Your task to perform on an android device: toggle wifi Image 0: 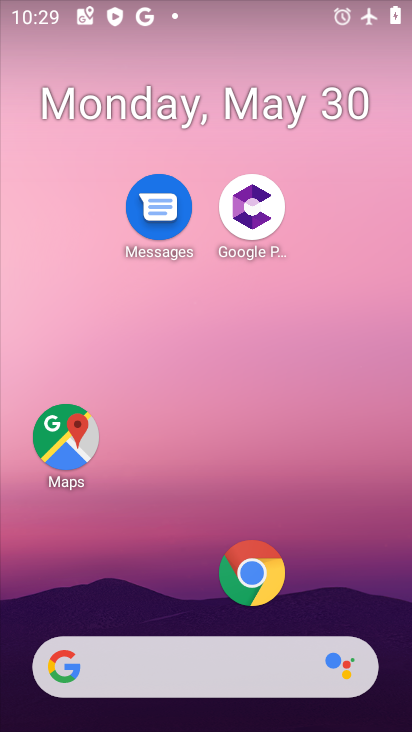
Step 0: drag from (247, 641) to (283, 159)
Your task to perform on an android device: toggle wifi Image 1: 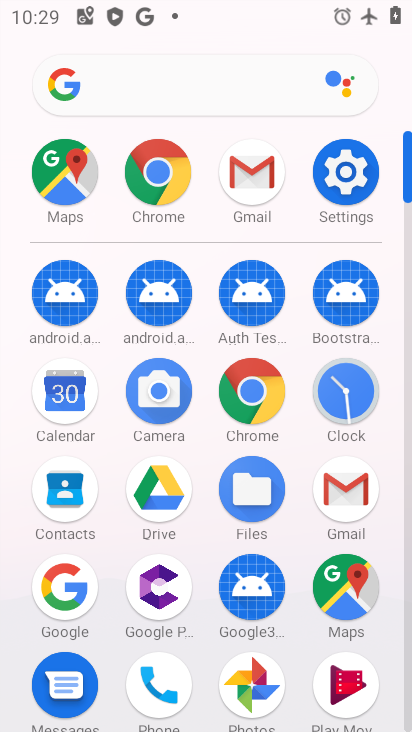
Step 1: click (346, 186)
Your task to perform on an android device: toggle wifi Image 2: 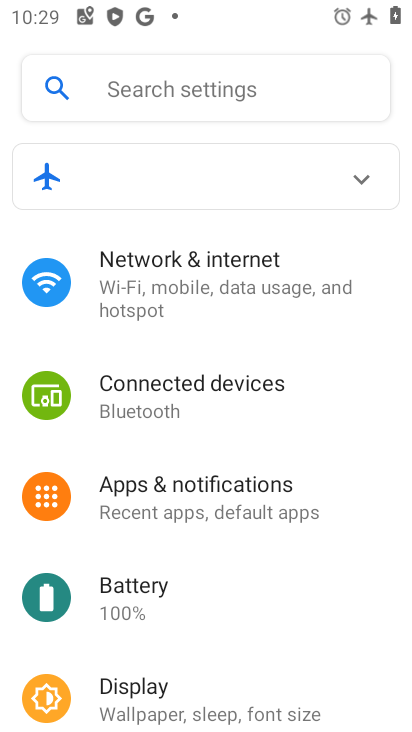
Step 2: click (261, 288)
Your task to perform on an android device: toggle wifi Image 3: 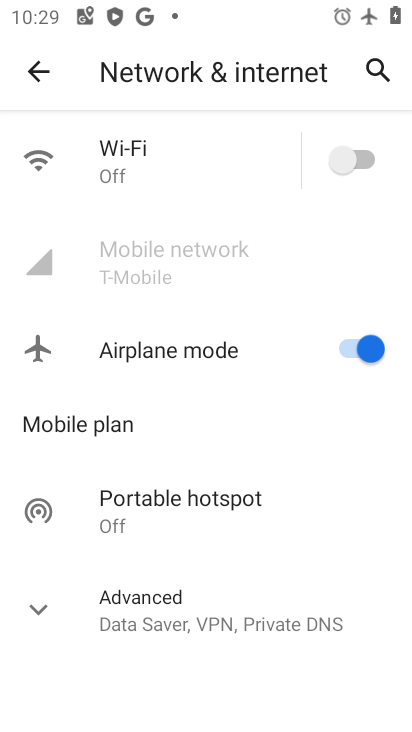
Step 3: click (367, 178)
Your task to perform on an android device: toggle wifi Image 4: 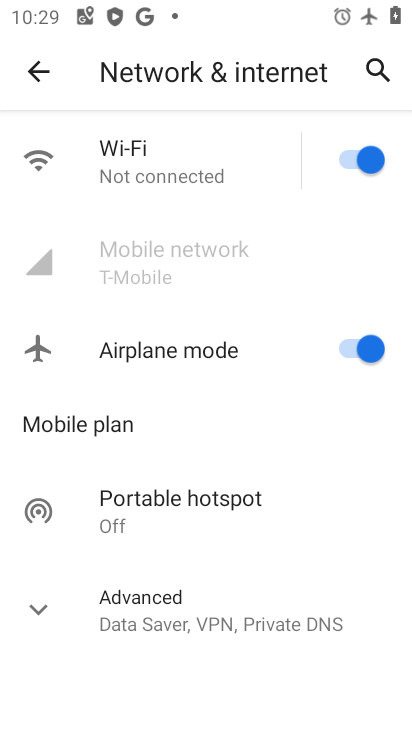
Step 4: task complete